Your task to perform on an android device: open wifi settings Image 0: 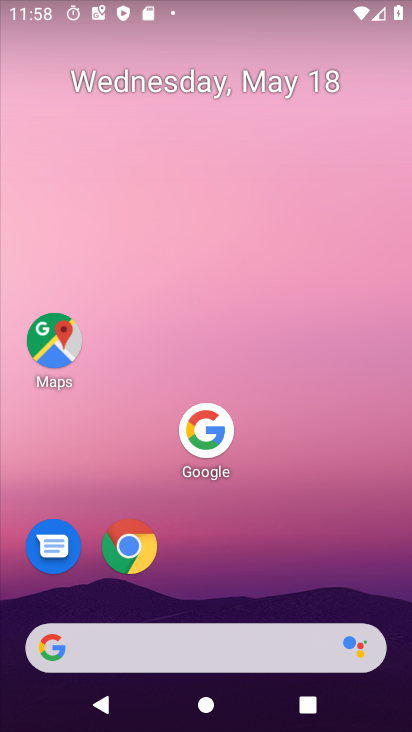
Step 0: drag from (288, 551) to (318, 85)
Your task to perform on an android device: open wifi settings Image 1: 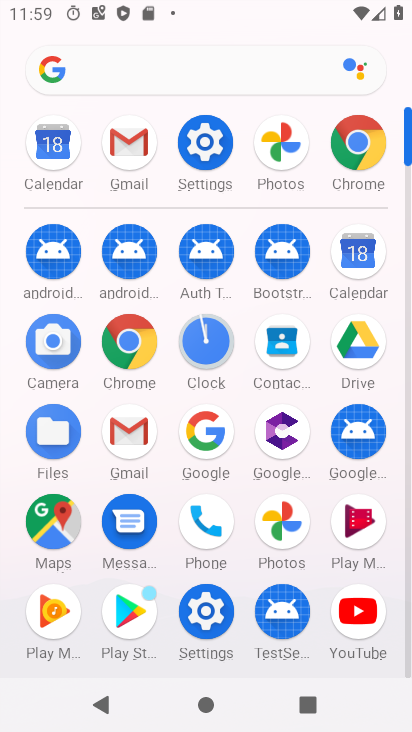
Step 1: click (214, 131)
Your task to perform on an android device: open wifi settings Image 2: 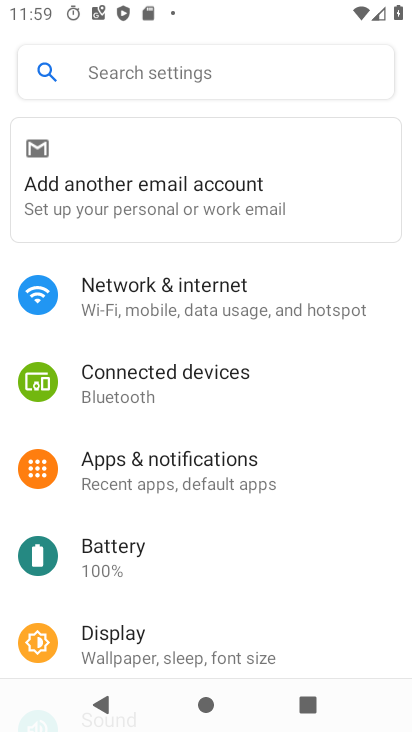
Step 2: click (282, 329)
Your task to perform on an android device: open wifi settings Image 3: 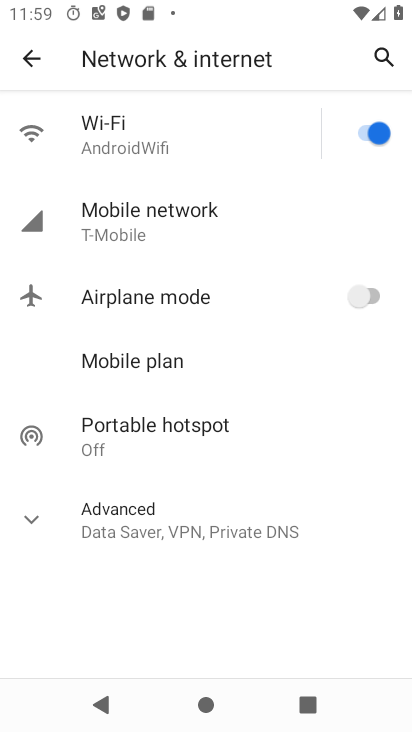
Step 3: click (219, 130)
Your task to perform on an android device: open wifi settings Image 4: 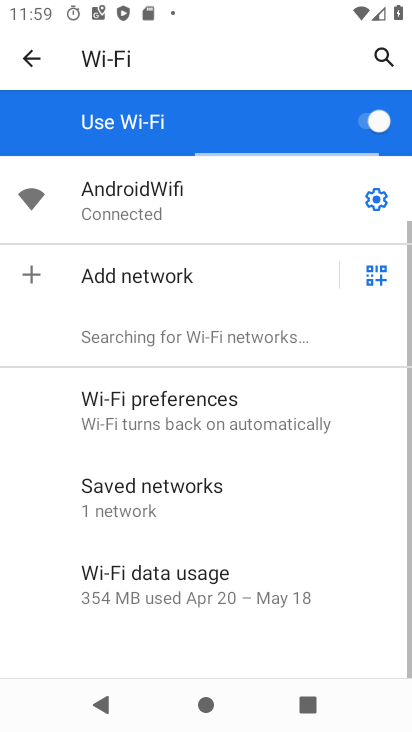
Step 4: click (371, 200)
Your task to perform on an android device: open wifi settings Image 5: 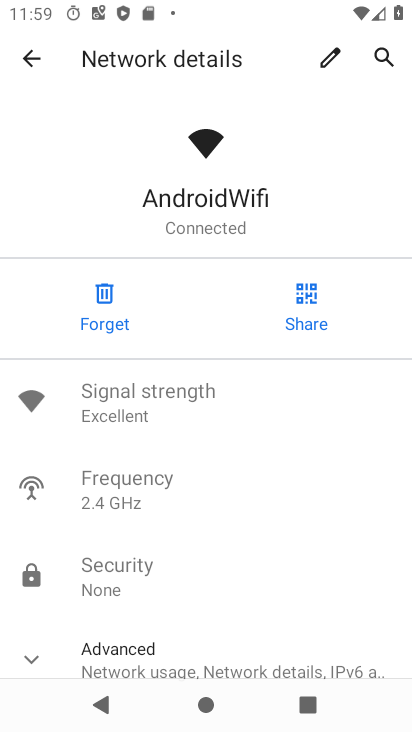
Step 5: task complete